Your task to perform on an android device: turn off data saver in the chrome app Image 0: 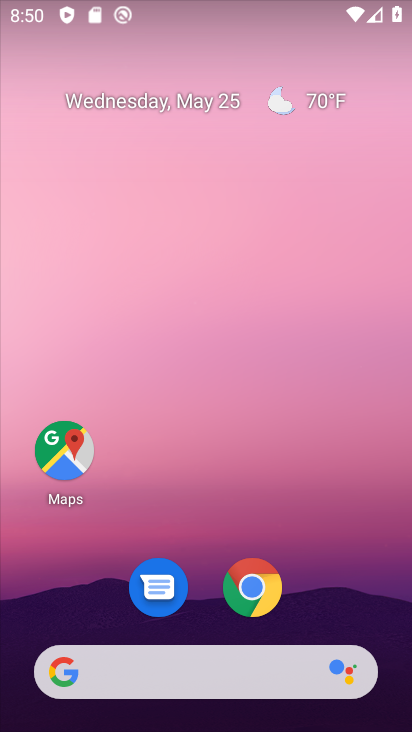
Step 0: click (251, 581)
Your task to perform on an android device: turn off data saver in the chrome app Image 1: 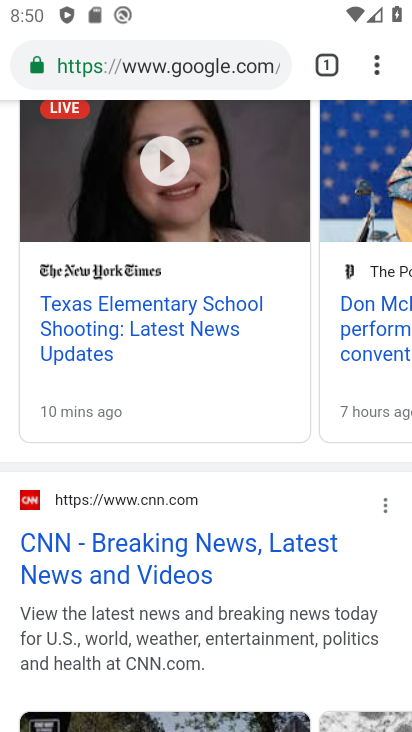
Step 1: drag from (286, 176) to (271, 376)
Your task to perform on an android device: turn off data saver in the chrome app Image 2: 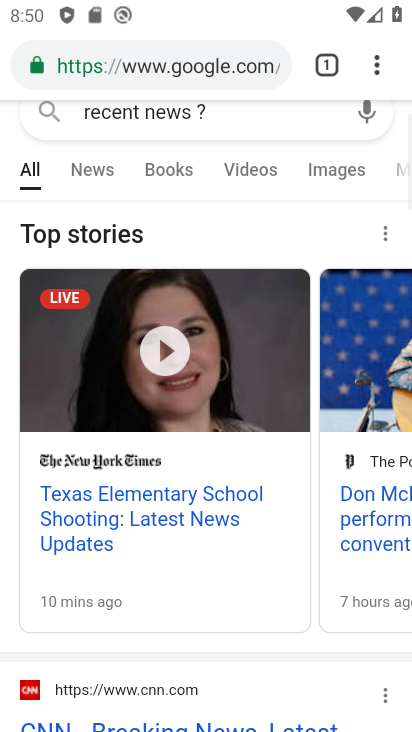
Step 2: click (373, 67)
Your task to perform on an android device: turn off data saver in the chrome app Image 3: 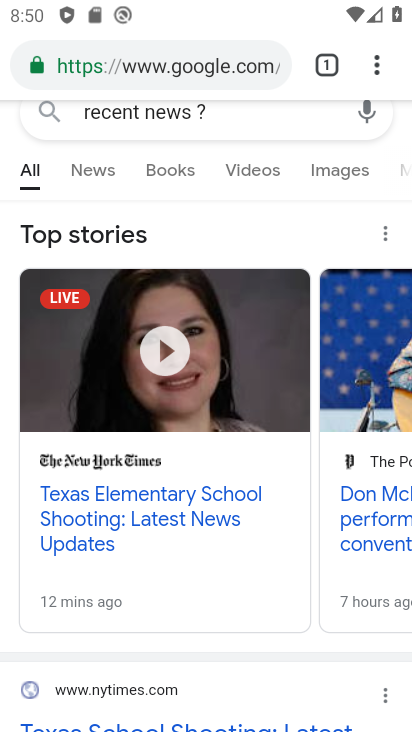
Step 3: click (372, 63)
Your task to perform on an android device: turn off data saver in the chrome app Image 4: 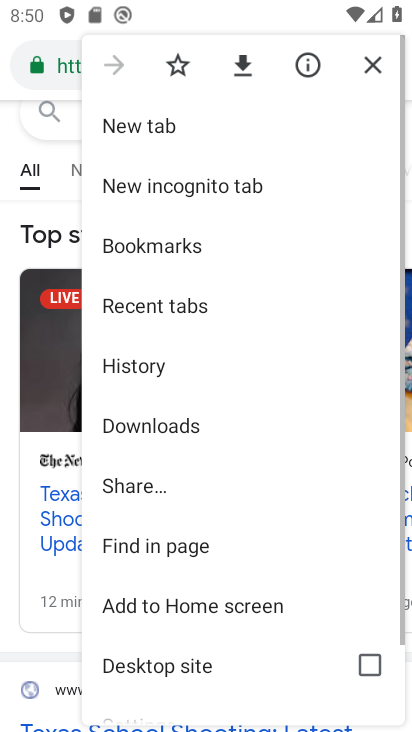
Step 4: drag from (155, 663) to (209, 407)
Your task to perform on an android device: turn off data saver in the chrome app Image 5: 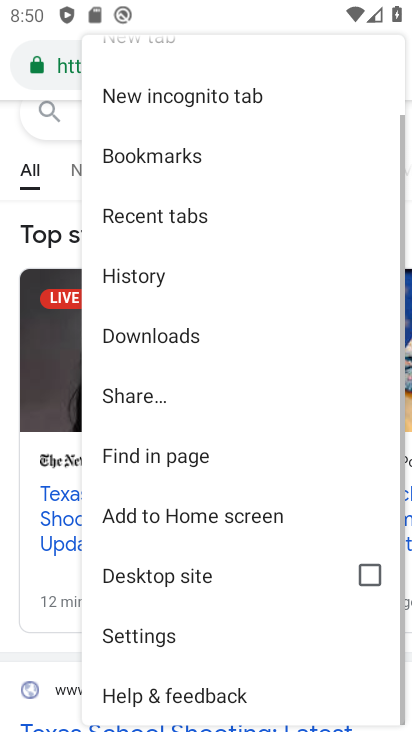
Step 5: click (141, 639)
Your task to perform on an android device: turn off data saver in the chrome app Image 6: 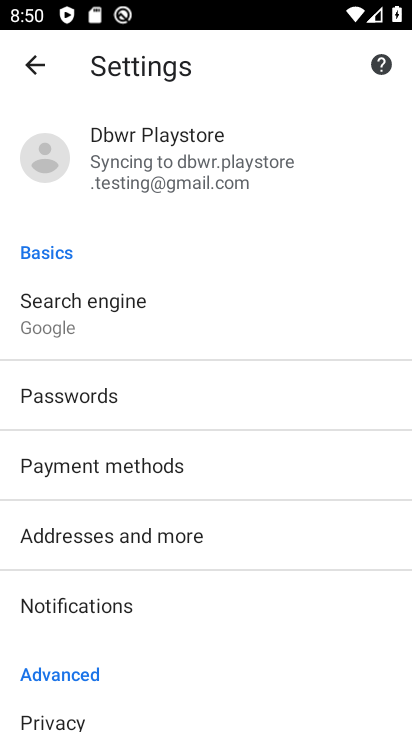
Step 6: drag from (147, 584) to (212, 168)
Your task to perform on an android device: turn off data saver in the chrome app Image 7: 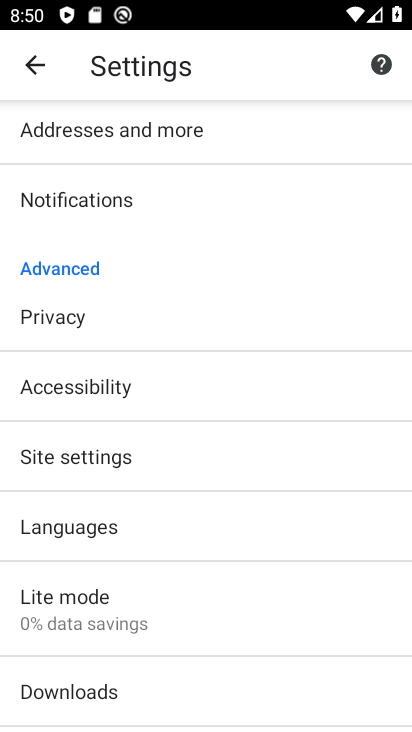
Step 7: click (98, 598)
Your task to perform on an android device: turn off data saver in the chrome app Image 8: 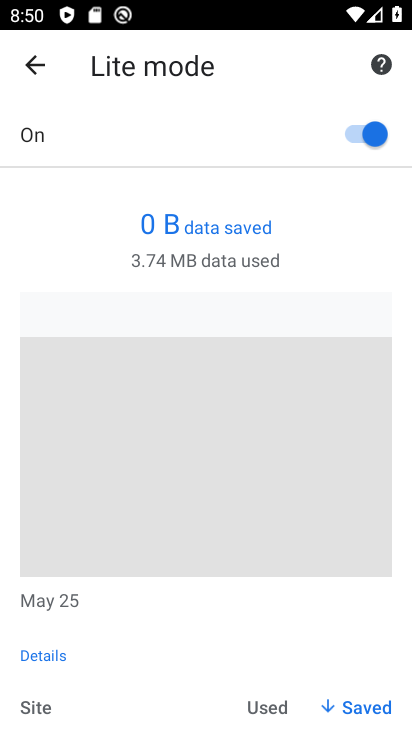
Step 8: click (331, 122)
Your task to perform on an android device: turn off data saver in the chrome app Image 9: 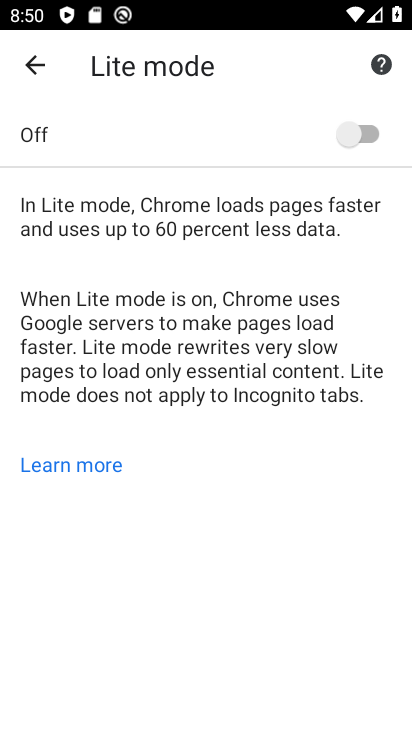
Step 9: task complete